Your task to perform on an android device: turn on location history Image 0: 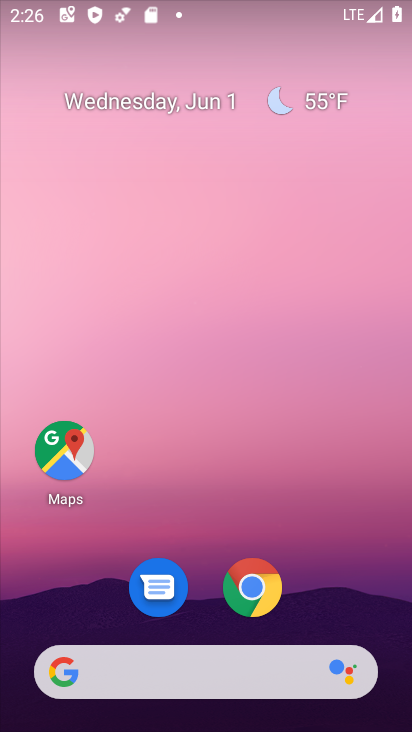
Step 0: click (251, 569)
Your task to perform on an android device: turn on location history Image 1: 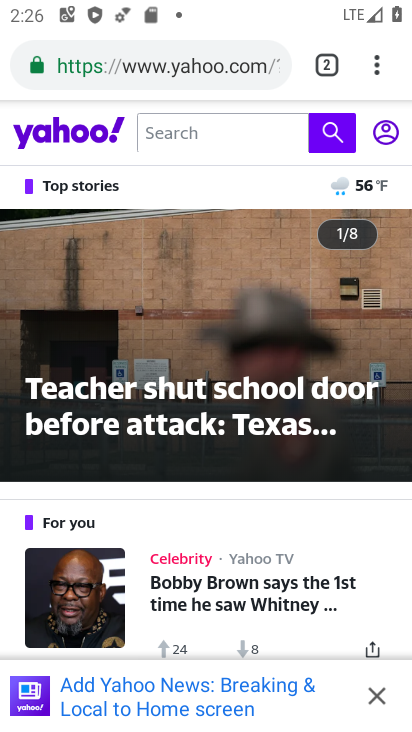
Step 1: press home button
Your task to perform on an android device: turn on location history Image 2: 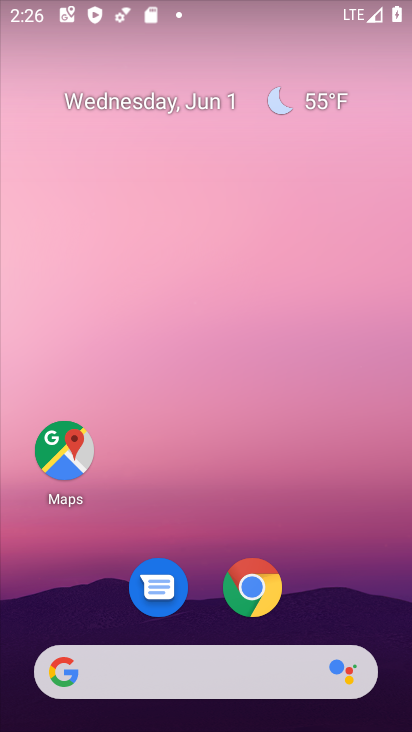
Step 2: drag from (230, 662) to (172, 7)
Your task to perform on an android device: turn on location history Image 3: 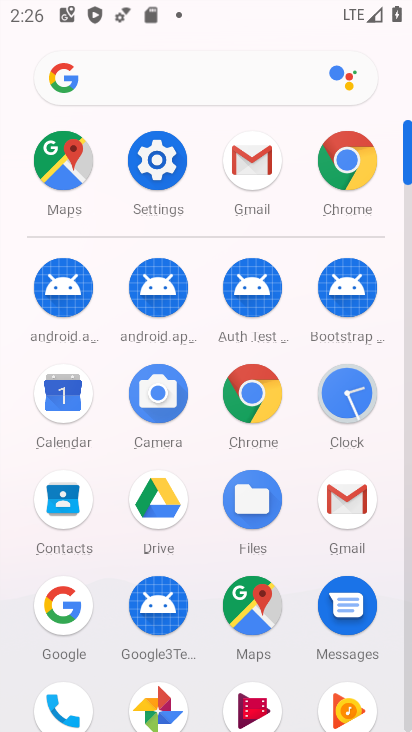
Step 3: click (168, 180)
Your task to perform on an android device: turn on location history Image 4: 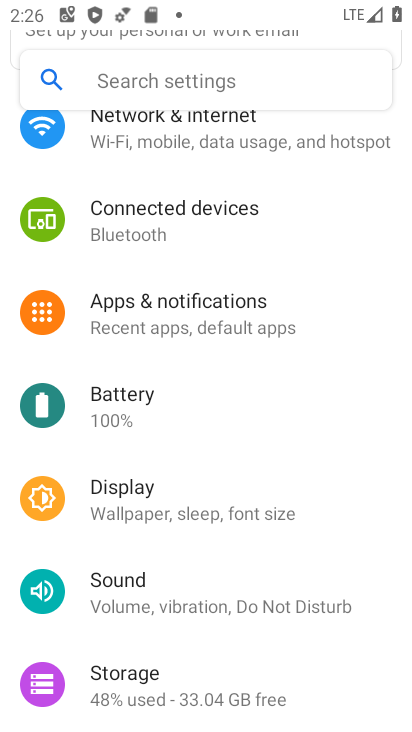
Step 4: drag from (168, 584) to (144, 197)
Your task to perform on an android device: turn on location history Image 5: 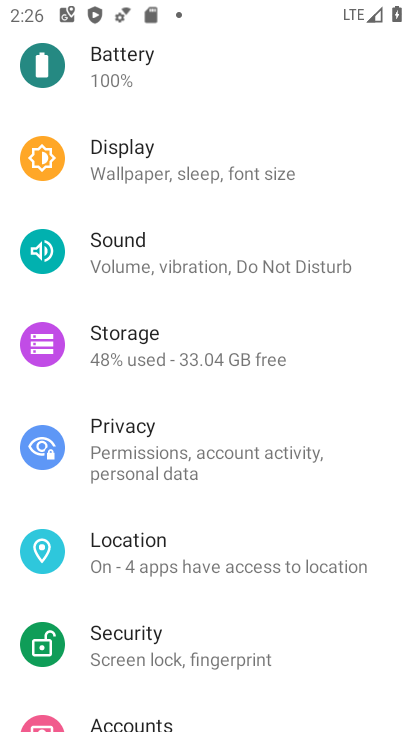
Step 5: click (171, 563)
Your task to perform on an android device: turn on location history Image 6: 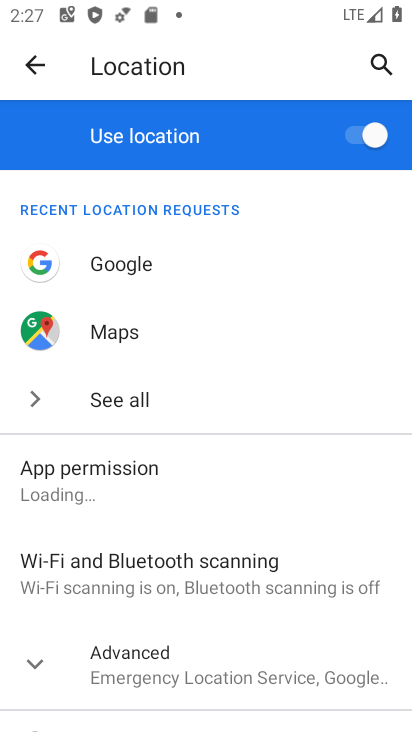
Step 6: click (177, 663)
Your task to perform on an android device: turn on location history Image 7: 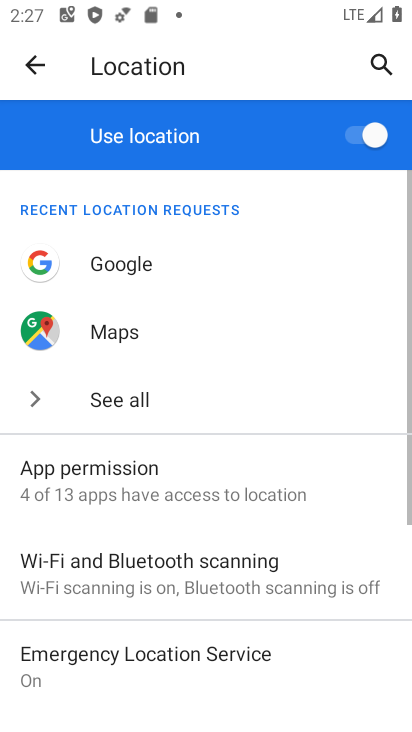
Step 7: drag from (201, 599) to (197, 241)
Your task to perform on an android device: turn on location history Image 8: 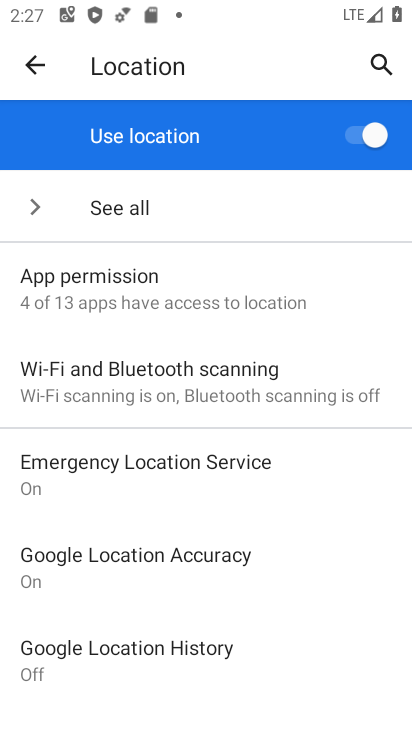
Step 8: click (186, 671)
Your task to perform on an android device: turn on location history Image 9: 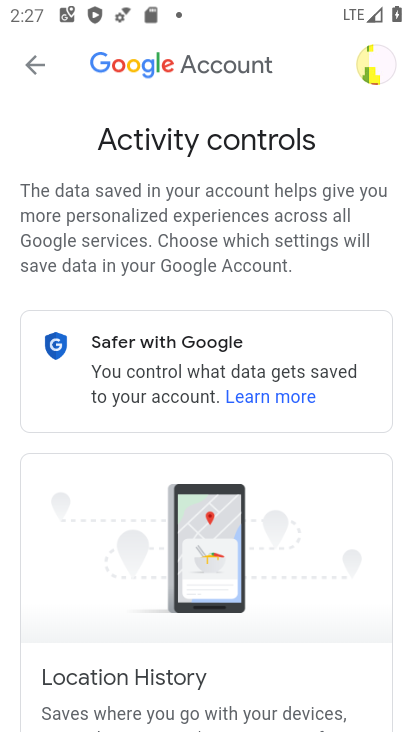
Step 9: task complete